Your task to perform on an android device: visit the assistant section in the google photos Image 0: 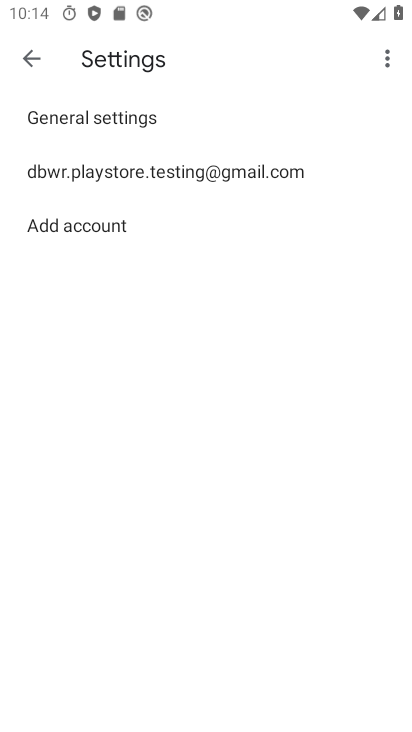
Step 0: press home button
Your task to perform on an android device: visit the assistant section in the google photos Image 1: 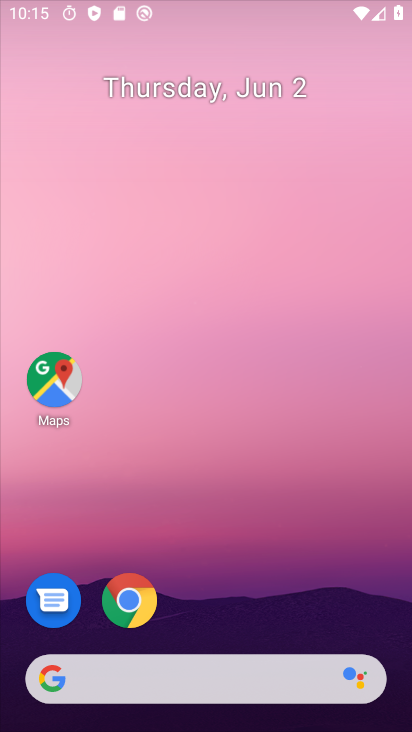
Step 1: drag from (227, 603) to (210, 29)
Your task to perform on an android device: visit the assistant section in the google photos Image 2: 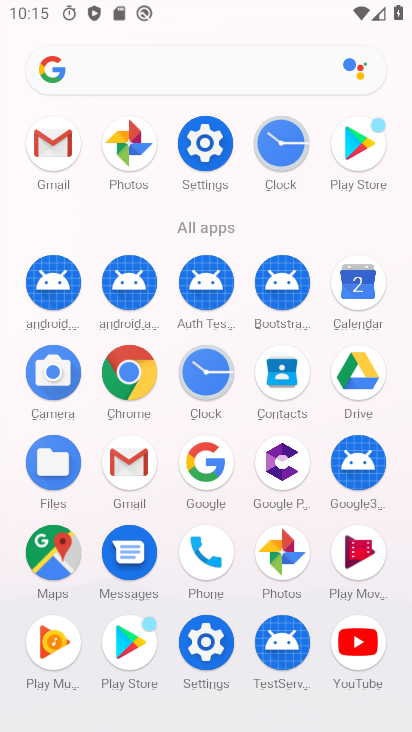
Step 2: click (287, 549)
Your task to perform on an android device: visit the assistant section in the google photos Image 3: 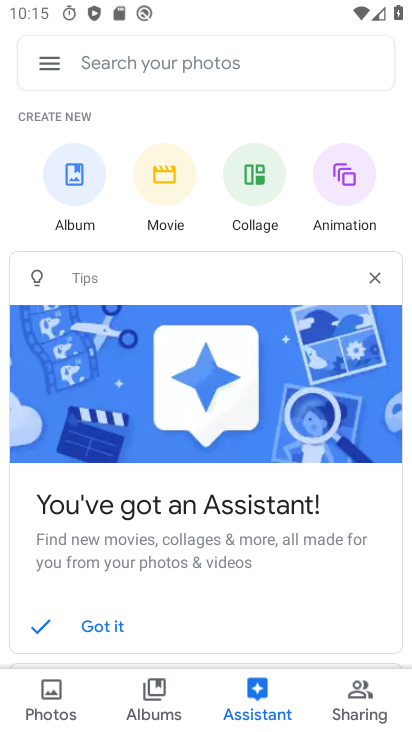
Step 3: click (251, 707)
Your task to perform on an android device: visit the assistant section in the google photos Image 4: 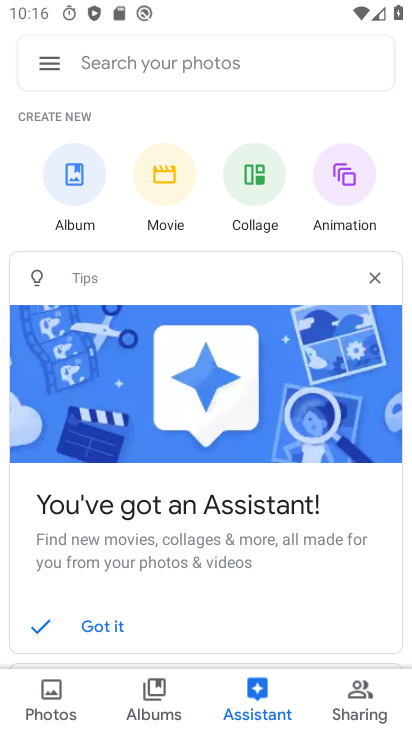
Step 4: task complete